Your task to perform on an android device: set default search engine in the chrome app Image 0: 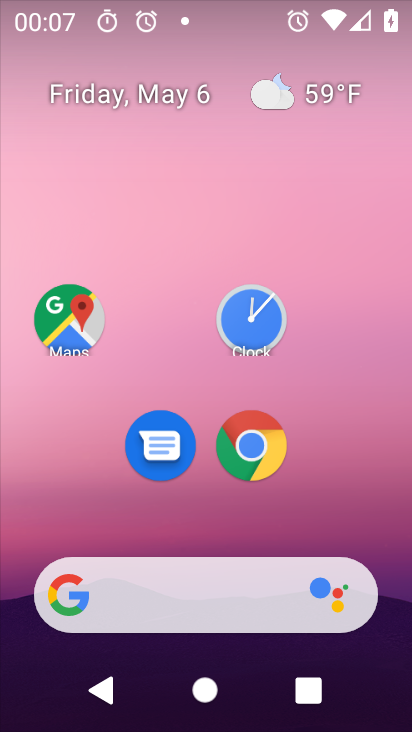
Step 0: click (226, 466)
Your task to perform on an android device: set default search engine in the chrome app Image 1: 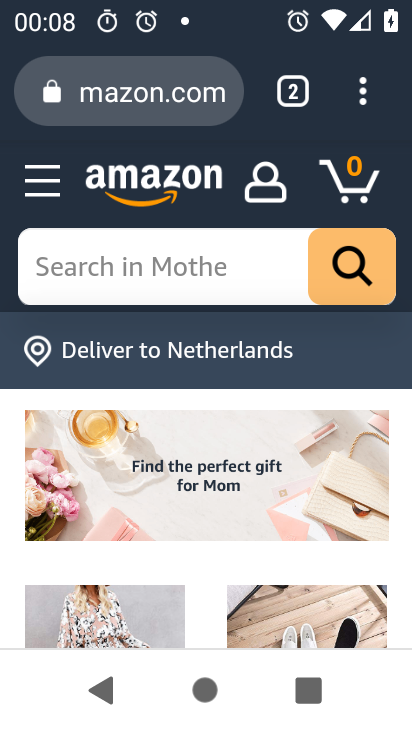
Step 1: click (367, 87)
Your task to perform on an android device: set default search engine in the chrome app Image 2: 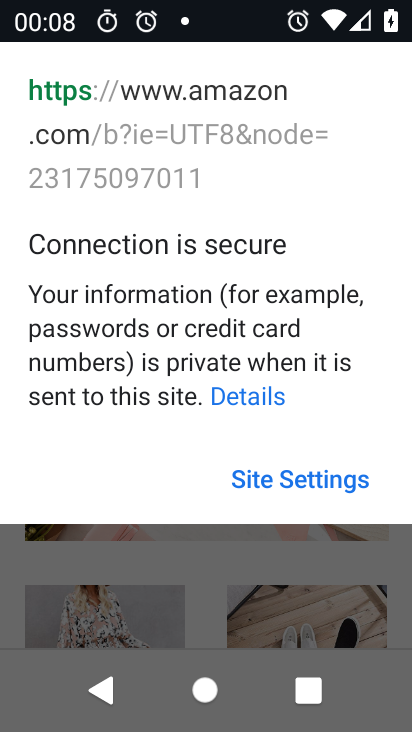
Step 2: press back button
Your task to perform on an android device: set default search engine in the chrome app Image 3: 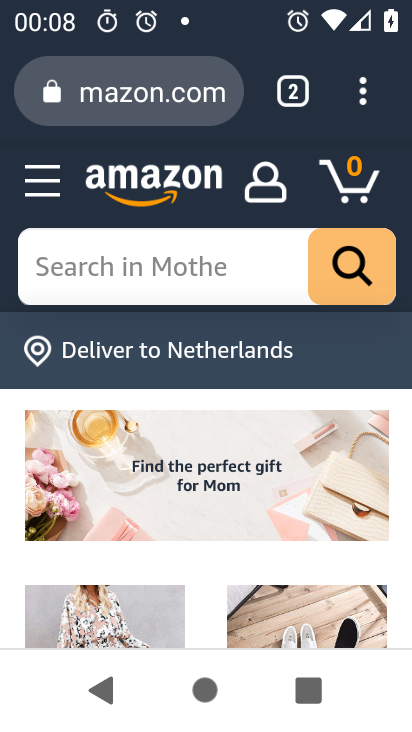
Step 3: drag from (359, 102) to (132, 469)
Your task to perform on an android device: set default search engine in the chrome app Image 4: 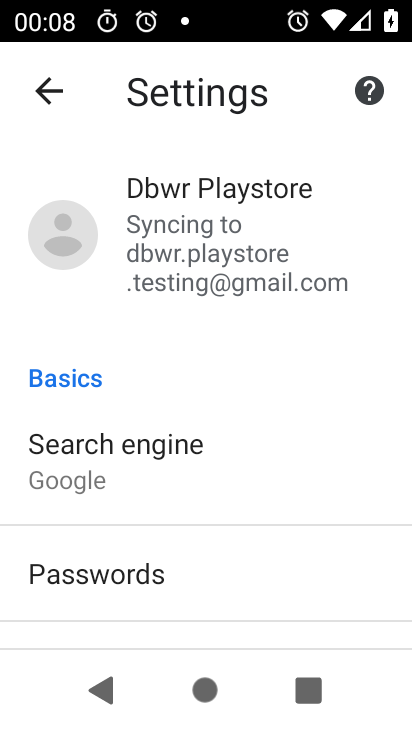
Step 4: click (140, 473)
Your task to perform on an android device: set default search engine in the chrome app Image 5: 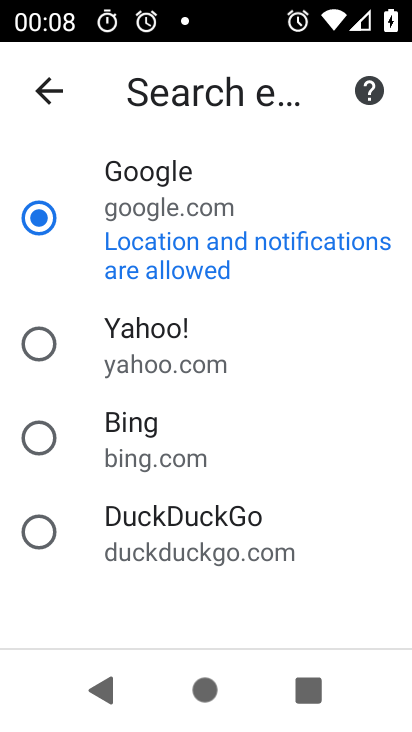
Step 5: click (128, 356)
Your task to perform on an android device: set default search engine in the chrome app Image 6: 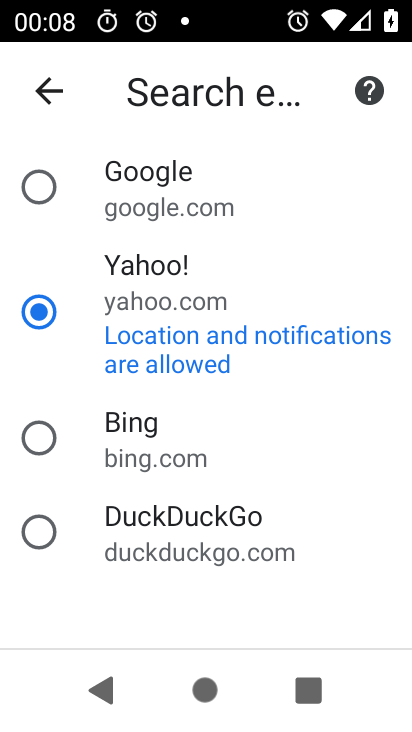
Step 6: task complete